Your task to perform on an android device: toggle notifications settings in the gmail app Image 0: 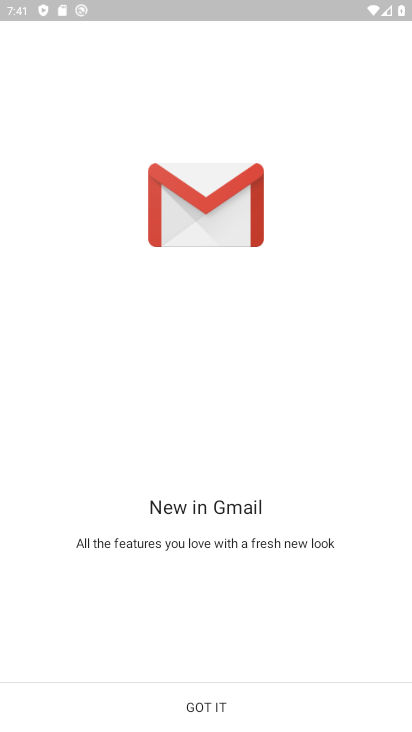
Step 0: click (242, 702)
Your task to perform on an android device: toggle notifications settings in the gmail app Image 1: 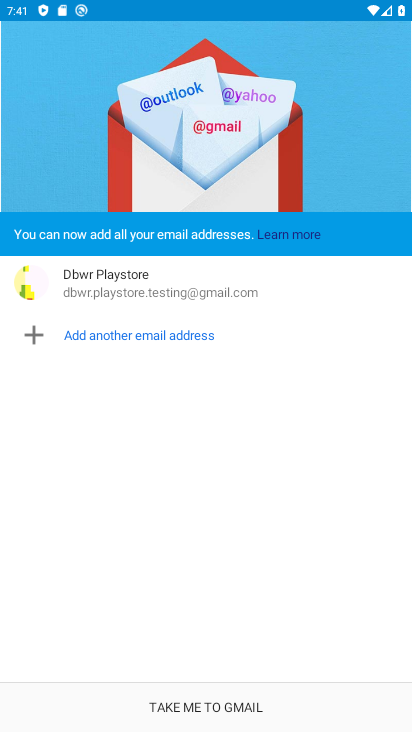
Step 1: click (242, 702)
Your task to perform on an android device: toggle notifications settings in the gmail app Image 2: 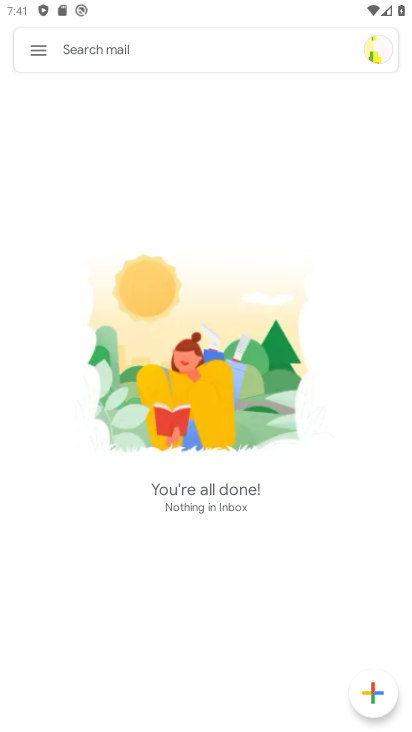
Step 2: click (41, 50)
Your task to perform on an android device: toggle notifications settings in the gmail app Image 3: 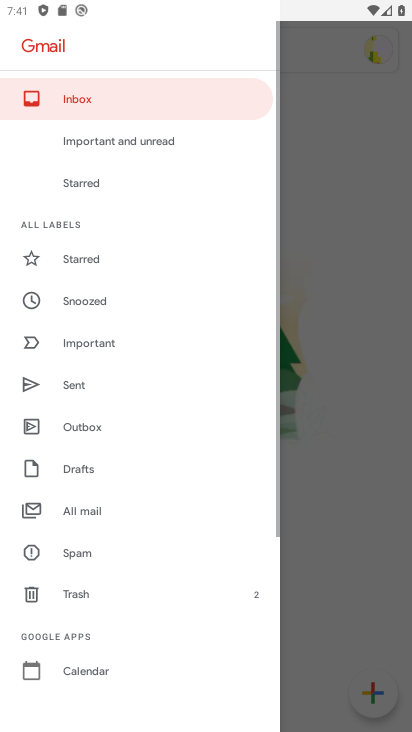
Step 3: drag from (157, 524) to (180, 183)
Your task to perform on an android device: toggle notifications settings in the gmail app Image 4: 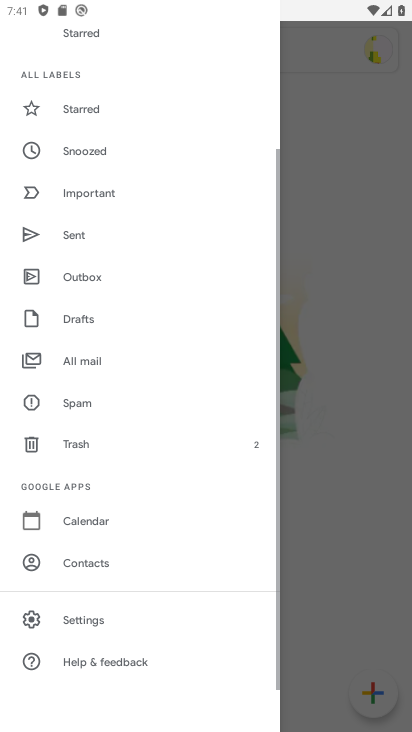
Step 4: drag from (172, 408) to (188, 173)
Your task to perform on an android device: toggle notifications settings in the gmail app Image 5: 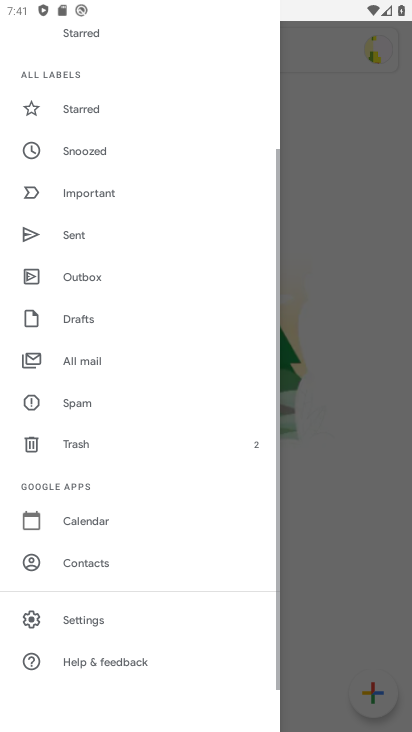
Step 5: click (87, 618)
Your task to perform on an android device: toggle notifications settings in the gmail app Image 6: 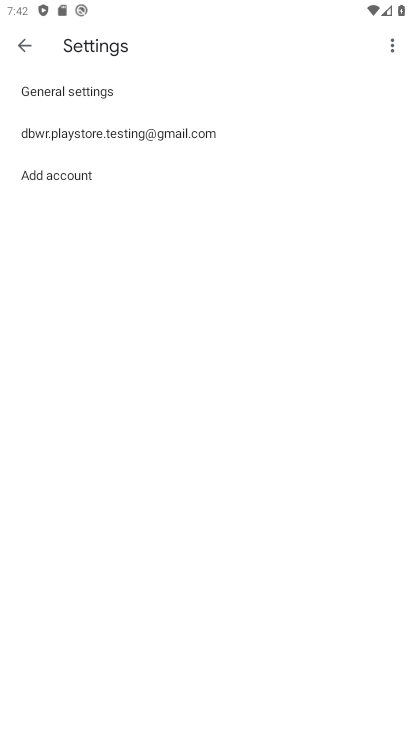
Step 6: click (123, 128)
Your task to perform on an android device: toggle notifications settings in the gmail app Image 7: 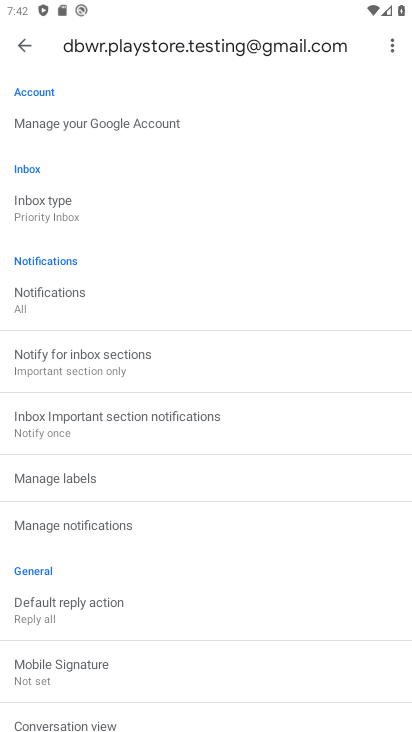
Step 7: drag from (199, 473) to (231, 186)
Your task to perform on an android device: toggle notifications settings in the gmail app Image 8: 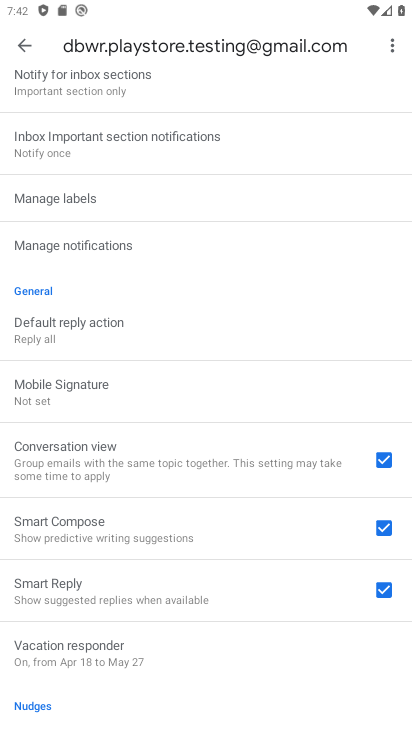
Step 8: click (102, 248)
Your task to perform on an android device: toggle notifications settings in the gmail app Image 9: 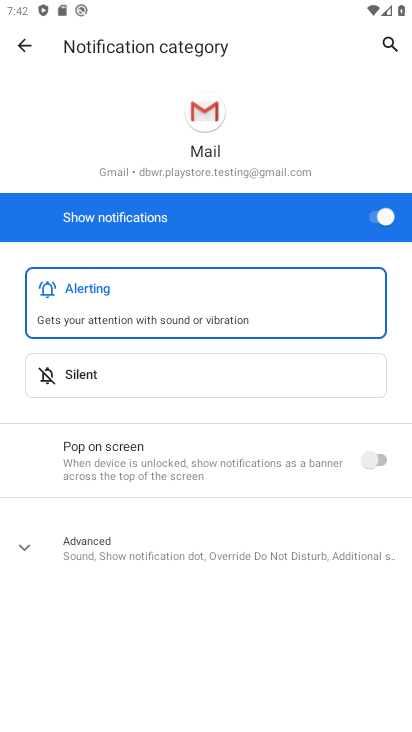
Step 9: click (373, 214)
Your task to perform on an android device: toggle notifications settings in the gmail app Image 10: 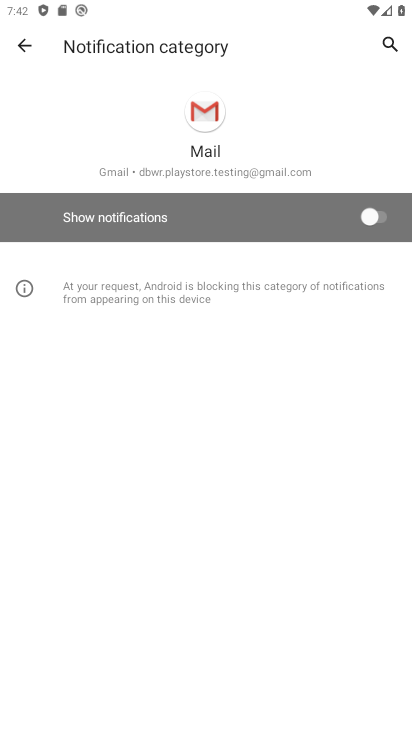
Step 10: task complete